Your task to perform on an android device: Open the stopwatch Image 0: 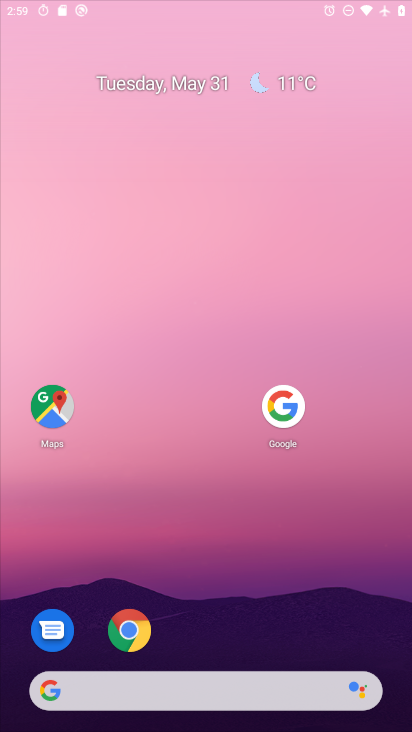
Step 0: press home button
Your task to perform on an android device: Open the stopwatch Image 1: 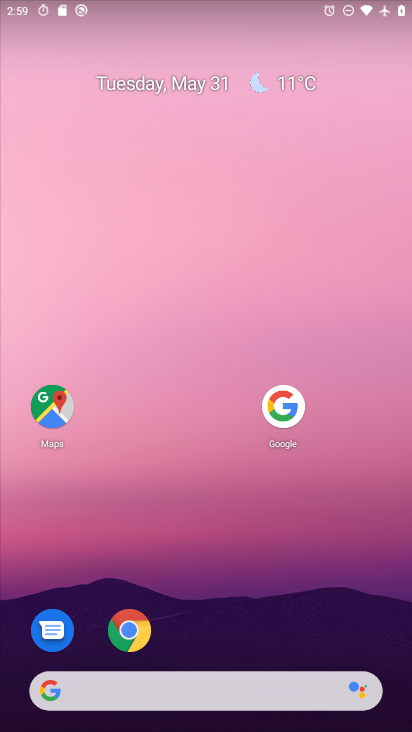
Step 1: drag from (170, 683) to (299, 141)
Your task to perform on an android device: Open the stopwatch Image 2: 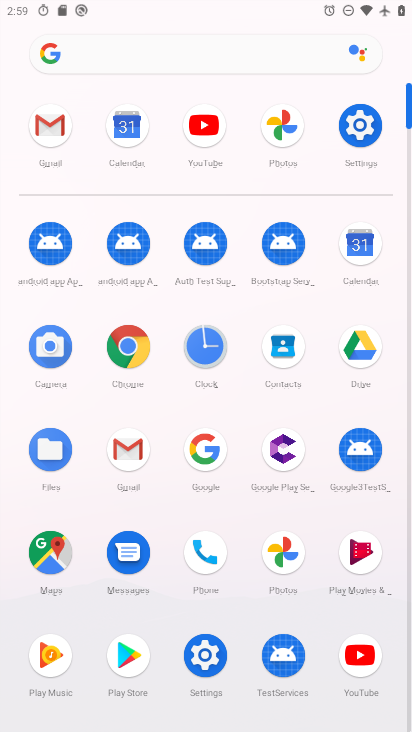
Step 2: click (214, 349)
Your task to perform on an android device: Open the stopwatch Image 3: 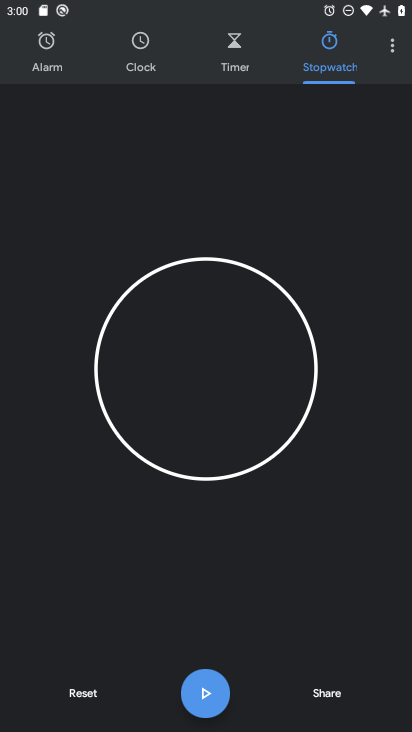
Step 3: task complete